Your task to perform on an android device: turn off translation in the chrome app Image 0: 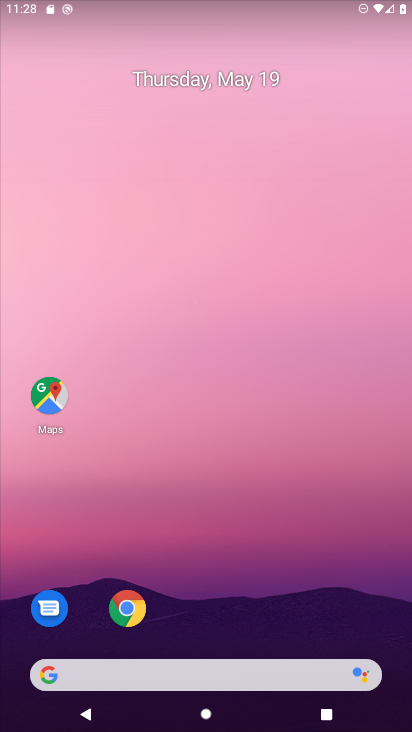
Step 0: press home button
Your task to perform on an android device: turn off translation in the chrome app Image 1: 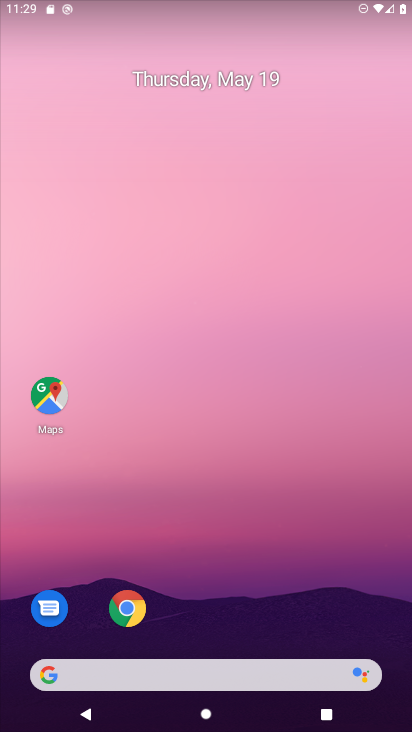
Step 1: click (143, 612)
Your task to perform on an android device: turn off translation in the chrome app Image 2: 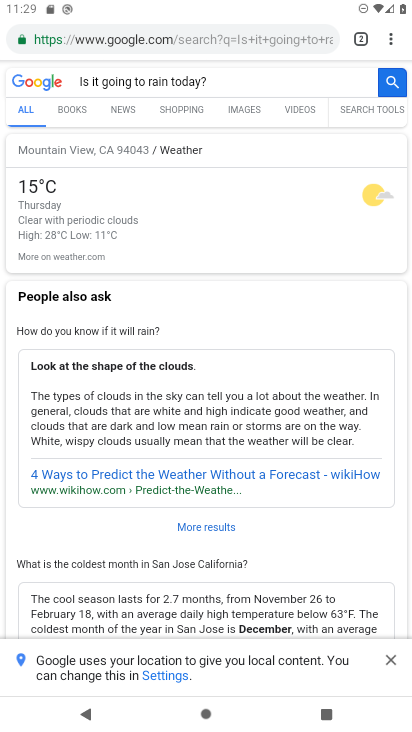
Step 2: click (392, 33)
Your task to perform on an android device: turn off translation in the chrome app Image 3: 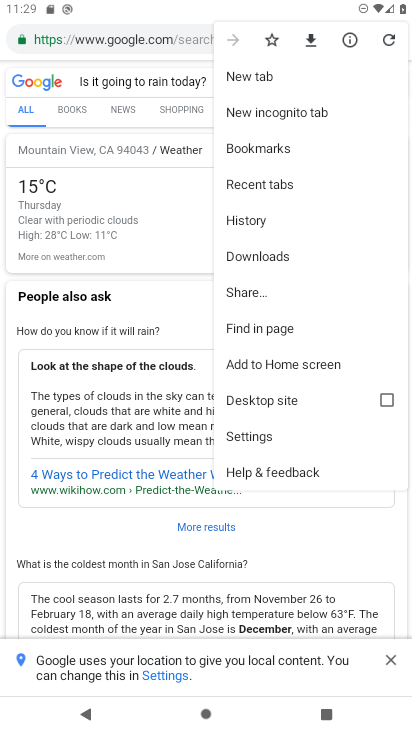
Step 3: click (272, 438)
Your task to perform on an android device: turn off translation in the chrome app Image 4: 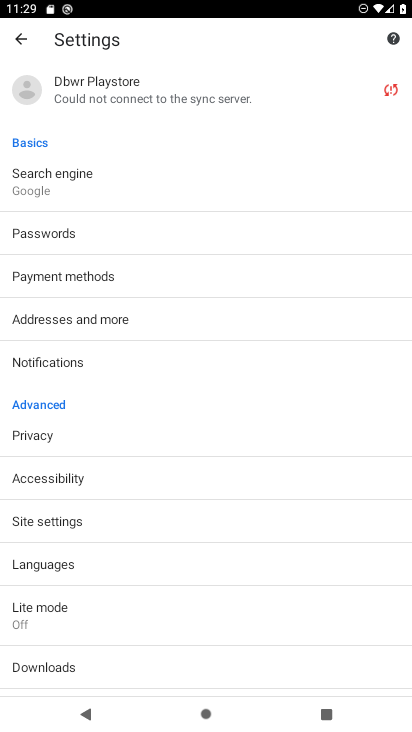
Step 4: click (91, 566)
Your task to perform on an android device: turn off translation in the chrome app Image 5: 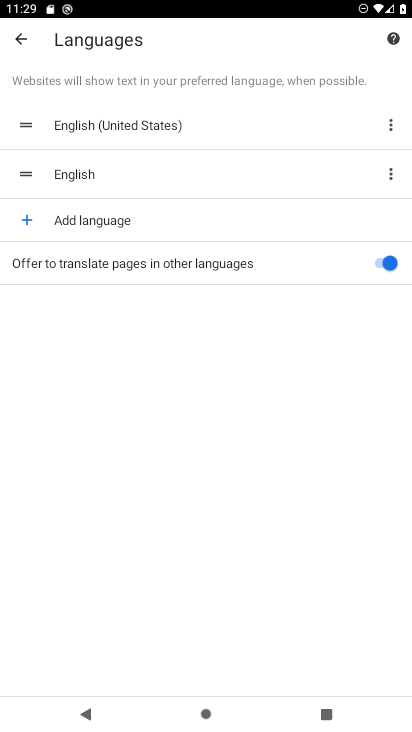
Step 5: click (379, 269)
Your task to perform on an android device: turn off translation in the chrome app Image 6: 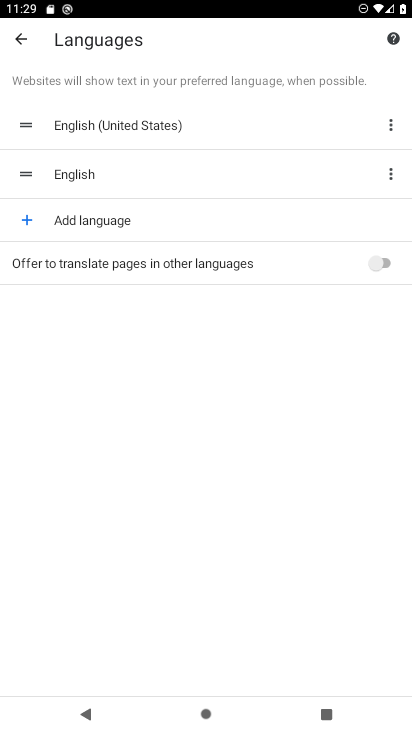
Step 6: task complete